Your task to perform on an android device: visit the assistant section in the google photos Image 0: 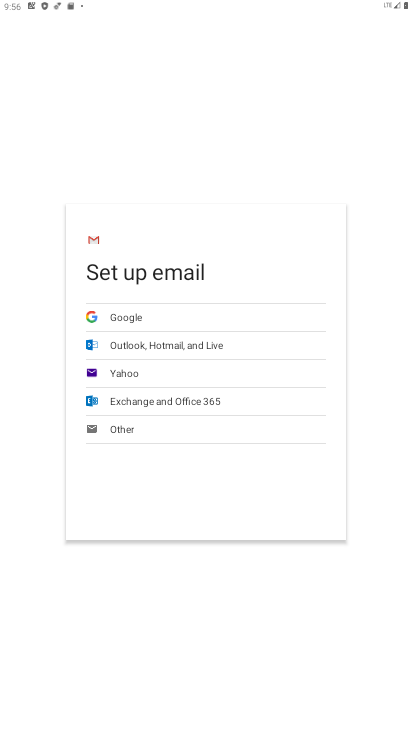
Step 0: press home button
Your task to perform on an android device: visit the assistant section in the google photos Image 1: 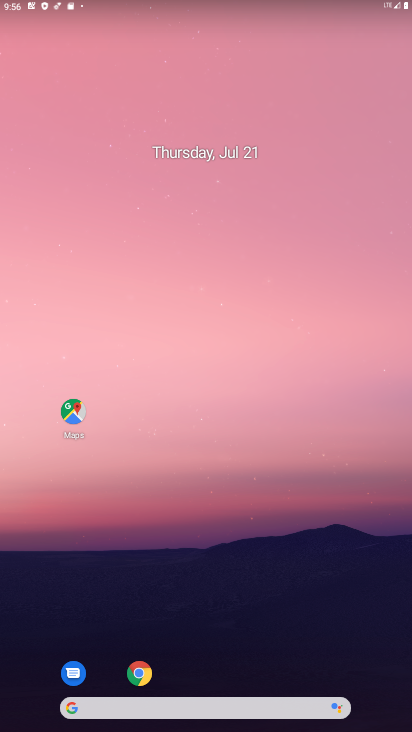
Step 1: drag from (171, 662) to (200, 295)
Your task to perform on an android device: visit the assistant section in the google photos Image 2: 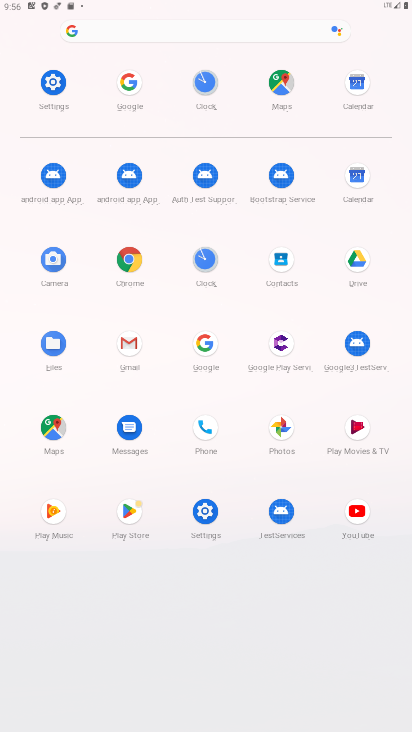
Step 2: click (274, 428)
Your task to perform on an android device: visit the assistant section in the google photos Image 3: 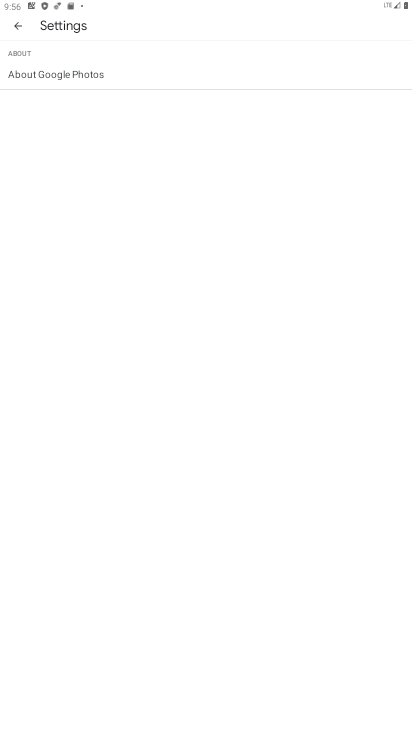
Step 3: click (18, 26)
Your task to perform on an android device: visit the assistant section in the google photos Image 4: 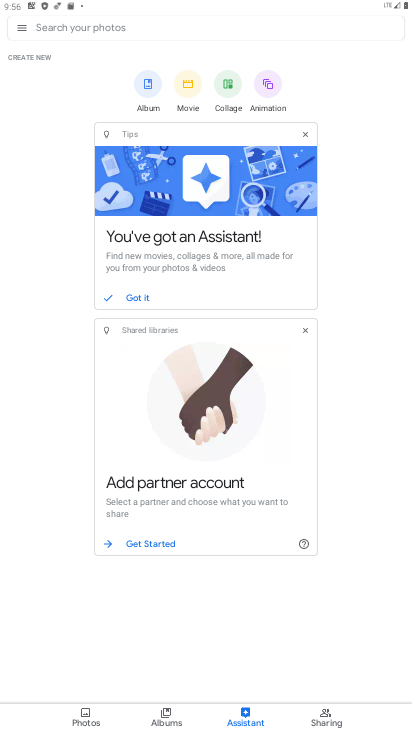
Step 4: task complete